Your task to perform on an android device: turn smart compose on in the gmail app Image 0: 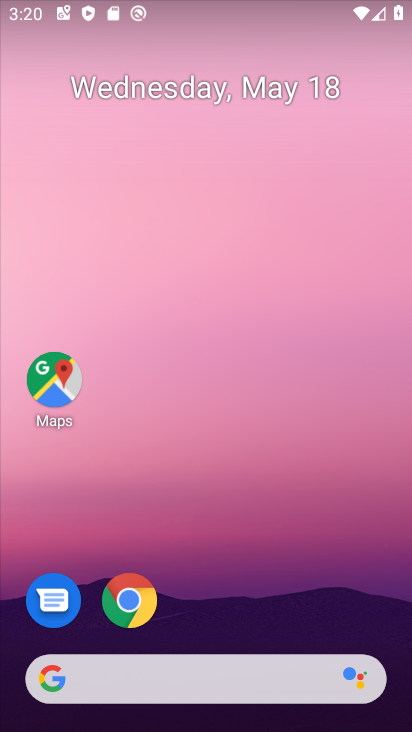
Step 0: press home button
Your task to perform on an android device: turn smart compose on in the gmail app Image 1: 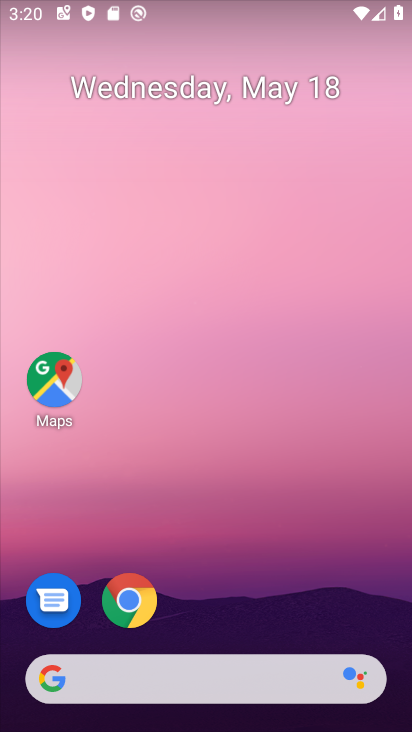
Step 1: drag from (201, 565) to (226, 279)
Your task to perform on an android device: turn smart compose on in the gmail app Image 2: 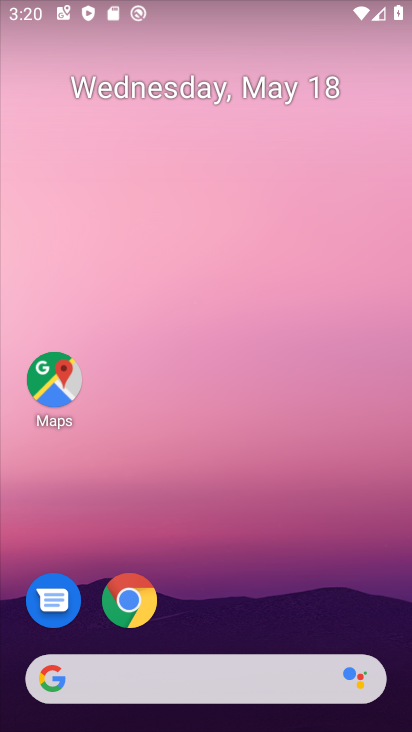
Step 2: drag from (209, 606) to (261, 217)
Your task to perform on an android device: turn smart compose on in the gmail app Image 3: 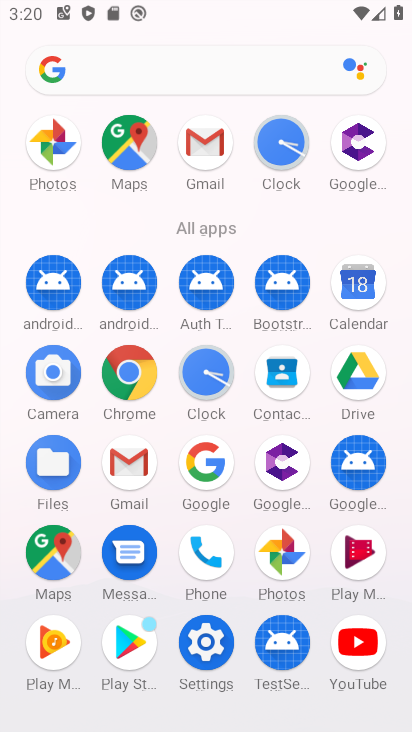
Step 3: click (129, 476)
Your task to perform on an android device: turn smart compose on in the gmail app Image 4: 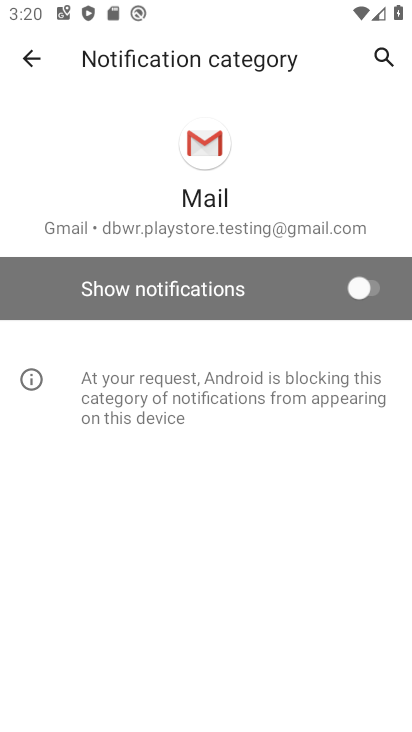
Step 4: click (37, 62)
Your task to perform on an android device: turn smart compose on in the gmail app Image 5: 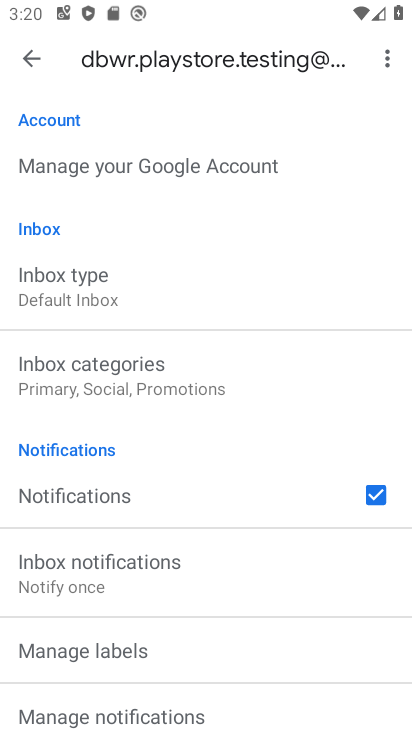
Step 5: task complete